Your task to perform on an android device: Go to display settings Image 0: 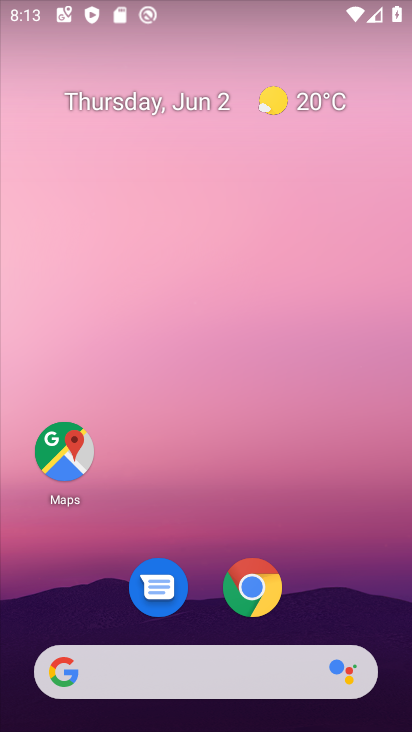
Step 0: drag from (209, 558) to (256, 26)
Your task to perform on an android device: Go to display settings Image 1: 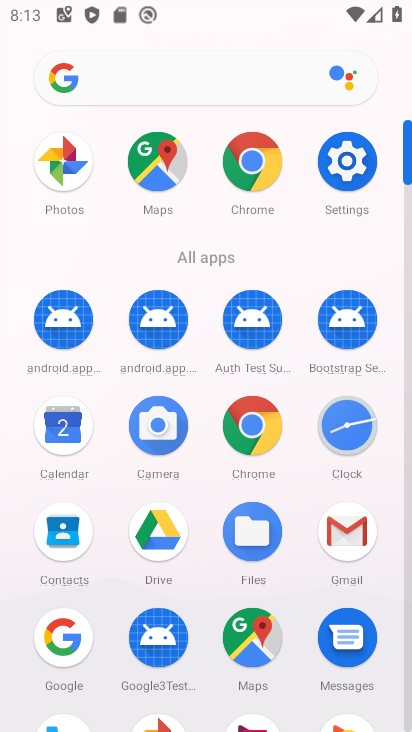
Step 1: click (332, 156)
Your task to perform on an android device: Go to display settings Image 2: 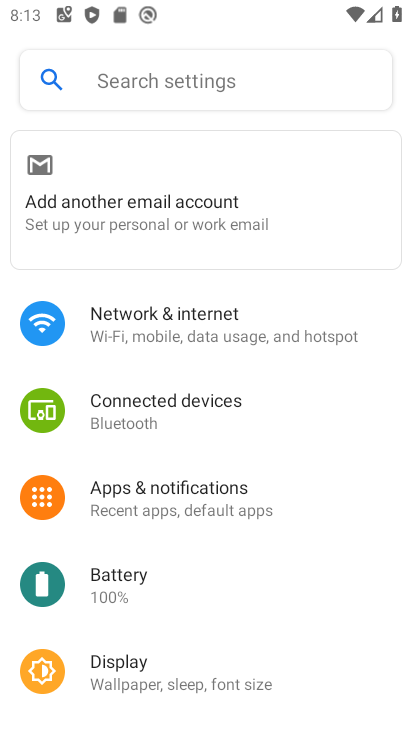
Step 2: click (124, 653)
Your task to perform on an android device: Go to display settings Image 3: 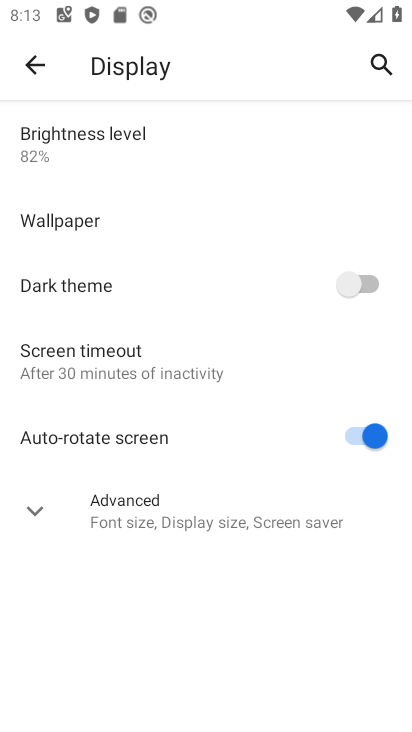
Step 3: task complete